Your task to perform on an android device: find which apps use the phone's location Image 0: 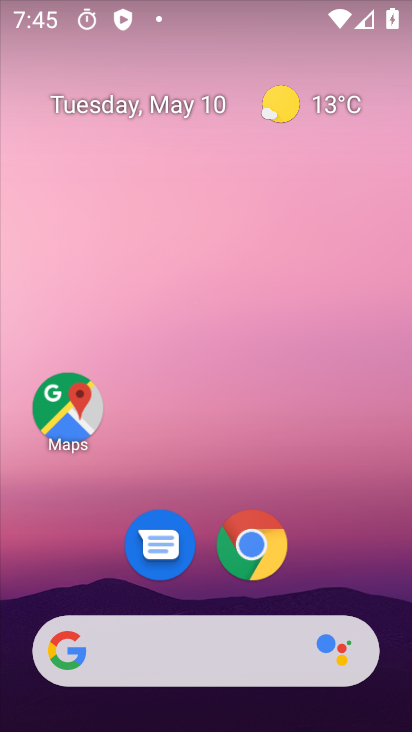
Step 0: press home button
Your task to perform on an android device: find which apps use the phone's location Image 1: 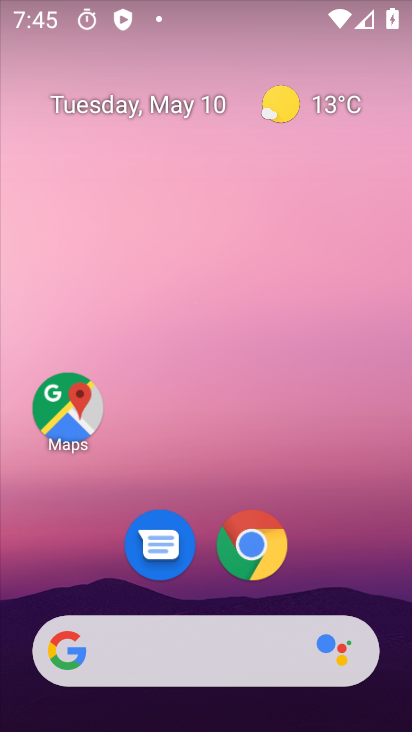
Step 1: drag from (205, 588) to (247, 99)
Your task to perform on an android device: find which apps use the phone's location Image 2: 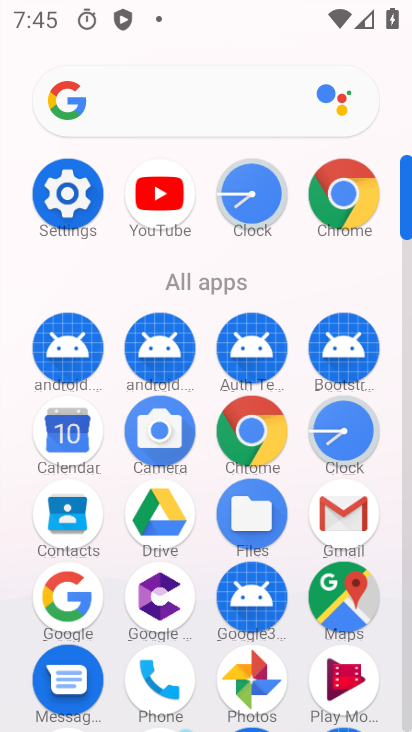
Step 2: click (66, 184)
Your task to perform on an android device: find which apps use the phone's location Image 3: 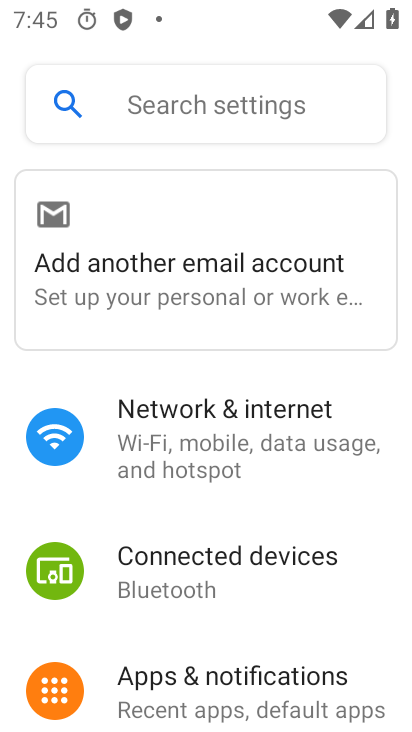
Step 3: drag from (189, 652) to (227, 101)
Your task to perform on an android device: find which apps use the phone's location Image 4: 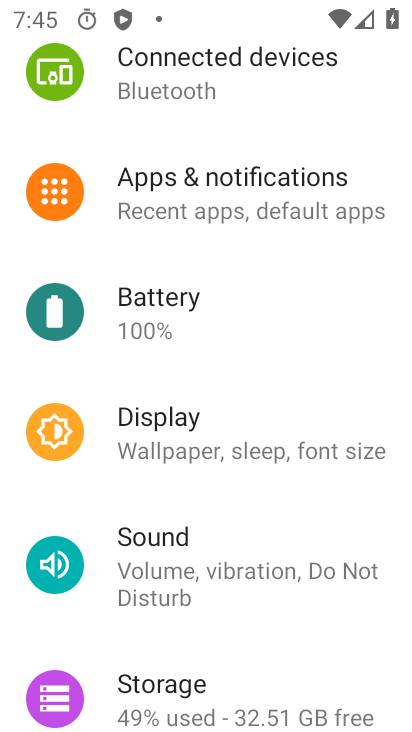
Step 4: drag from (198, 666) to (255, 52)
Your task to perform on an android device: find which apps use the phone's location Image 5: 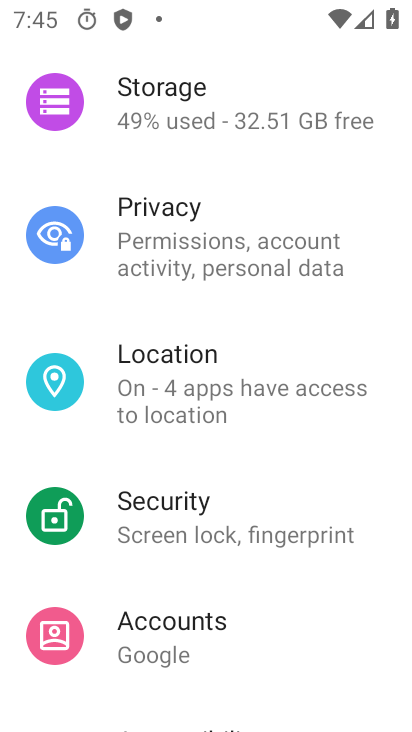
Step 5: click (231, 354)
Your task to perform on an android device: find which apps use the phone's location Image 6: 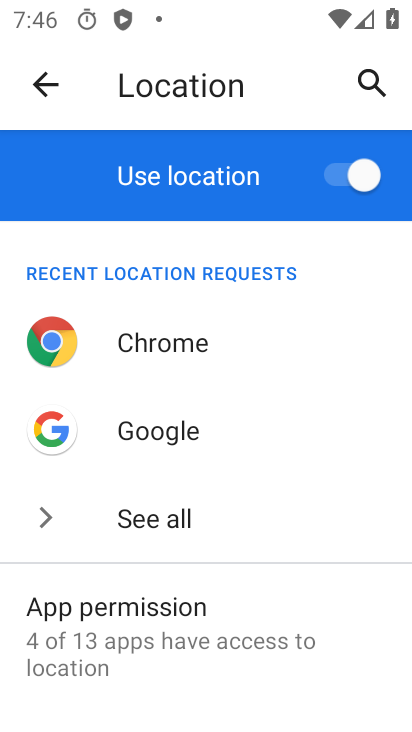
Step 6: click (166, 627)
Your task to perform on an android device: find which apps use the phone's location Image 7: 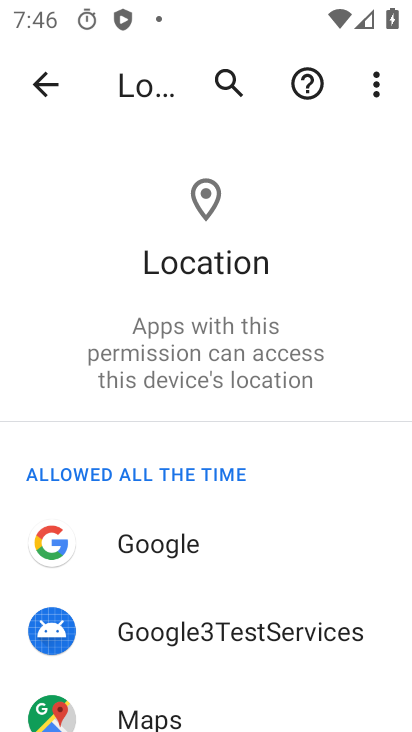
Step 7: task complete